Your task to perform on an android device: Open Google Chrome and open the bookmarks view Image 0: 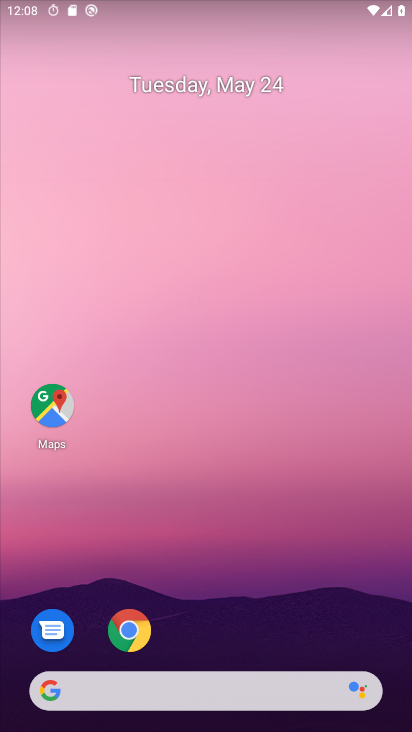
Step 0: click (145, 635)
Your task to perform on an android device: Open Google Chrome and open the bookmarks view Image 1: 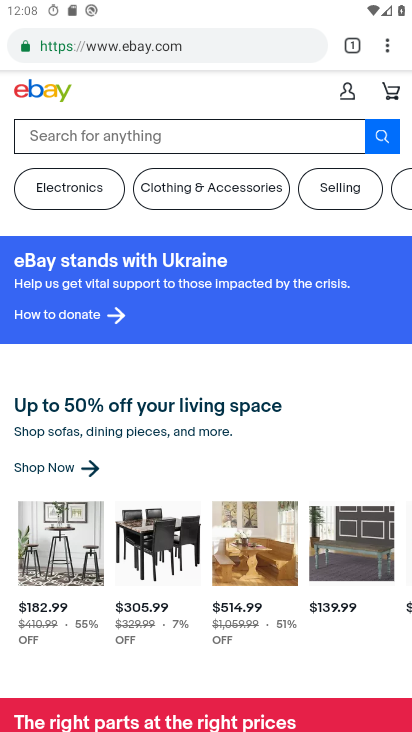
Step 1: click (381, 45)
Your task to perform on an android device: Open Google Chrome and open the bookmarks view Image 2: 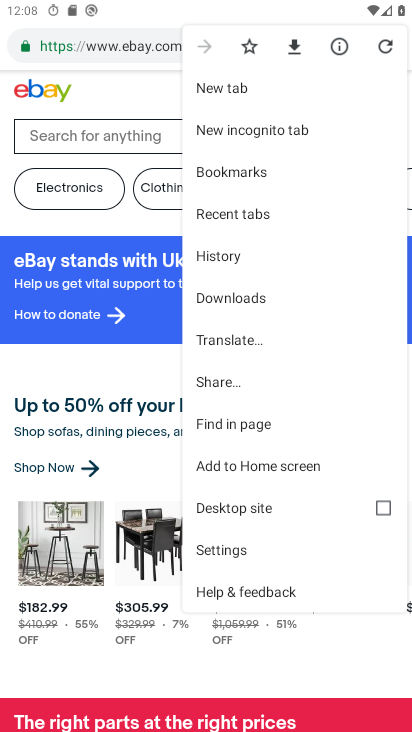
Step 2: click (266, 173)
Your task to perform on an android device: Open Google Chrome and open the bookmarks view Image 3: 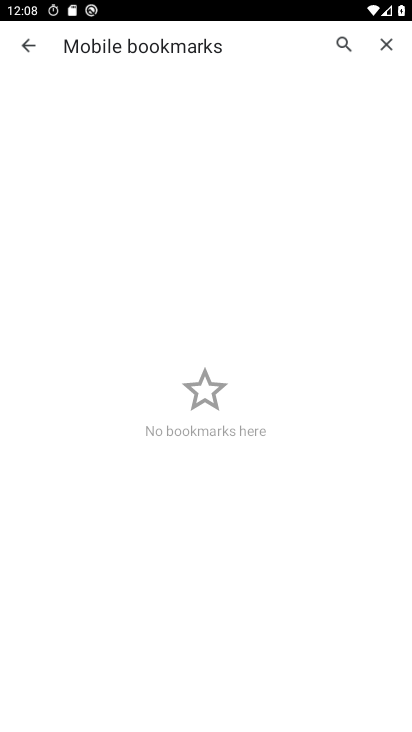
Step 3: task complete